Your task to perform on an android device: turn off data saver in the chrome app Image 0: 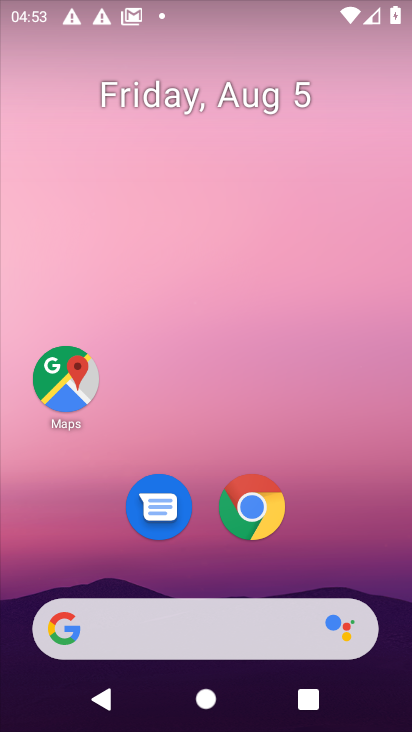
Step 0: drag from (176, 595) to (182, 215)
Your task to perform on an android device: turn off data saver in the chrome app Image 1: 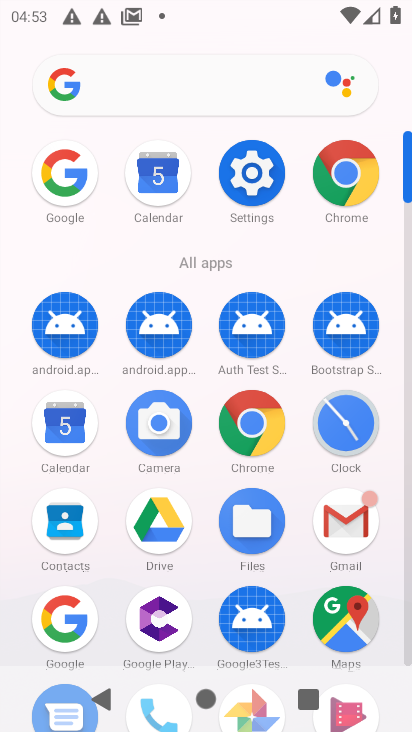
Step 1: click (252, 425)
Your task to perform on an android device: turn off data saver in the chrome app Image 2: 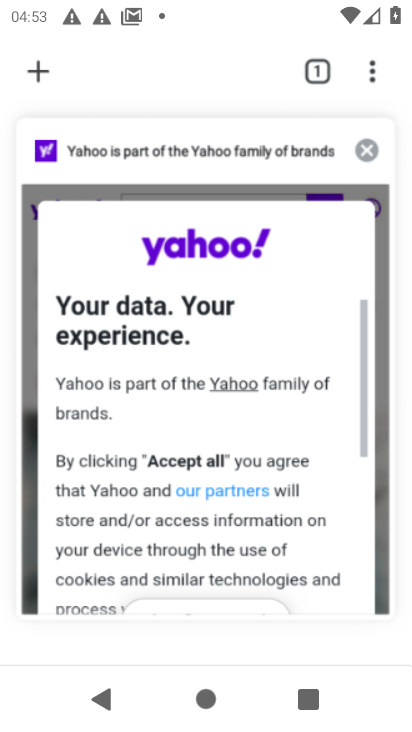
Step 2: click (369, 69)
Your task to perform on an android device: turn off data saver in the chrome app Image 3: 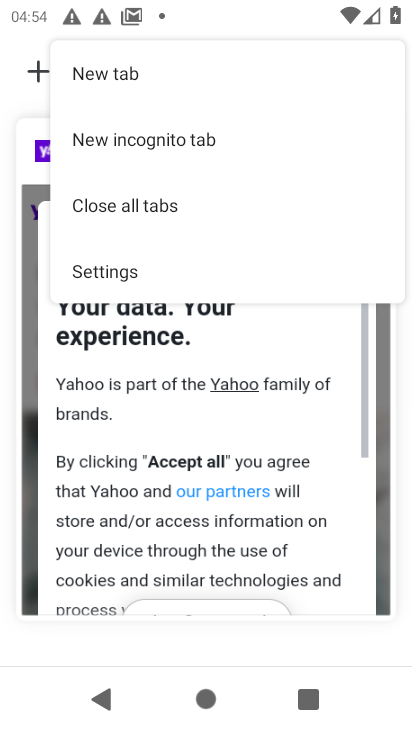
Step 3: click (105, 272)
Your task to perform on an android device: turn off data saver in the chrome app Image 4: 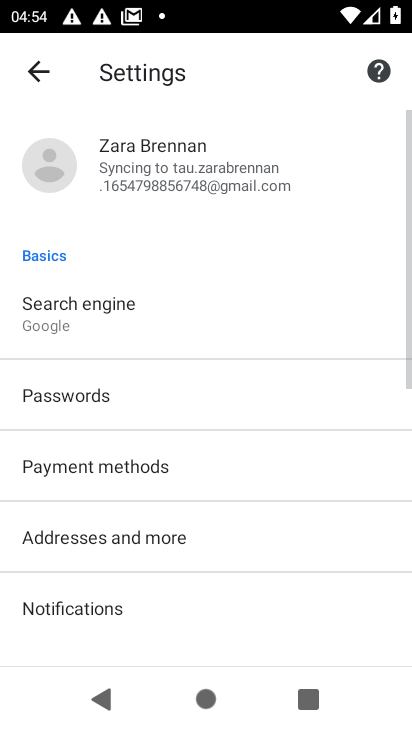
Step 4: drag from (135, 596) to (118, 232)
Your task to perform on an android device: turn off data saver in the chrome app Image 5: 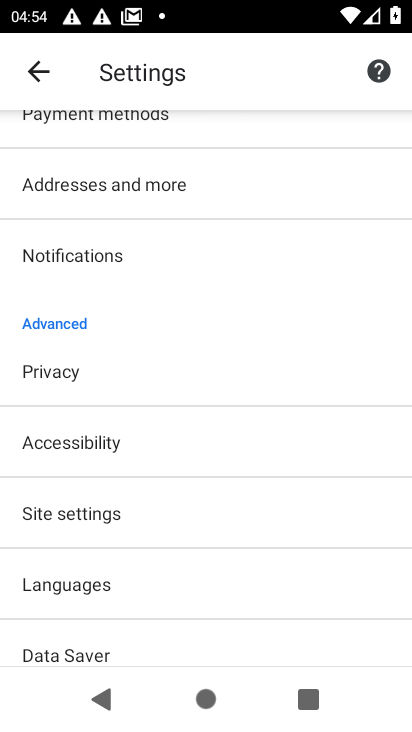
Step 5: click (59, 652)
Your task to perform on an android device: turn off data saver in the chrome app Image 6: 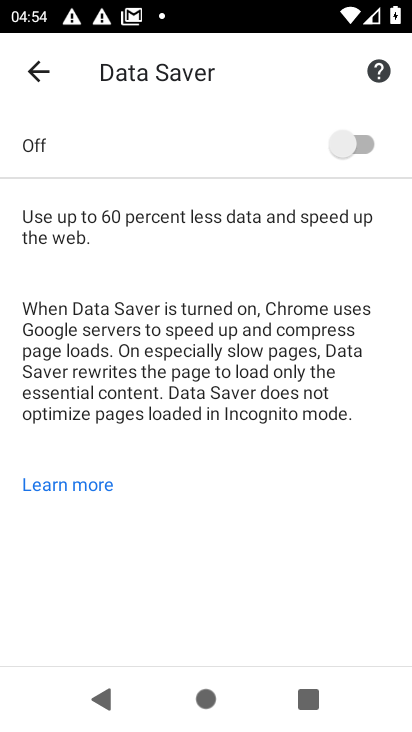
Step 6: task complete